Your task to perform on an android device: Go to Wikipedia Image 0: 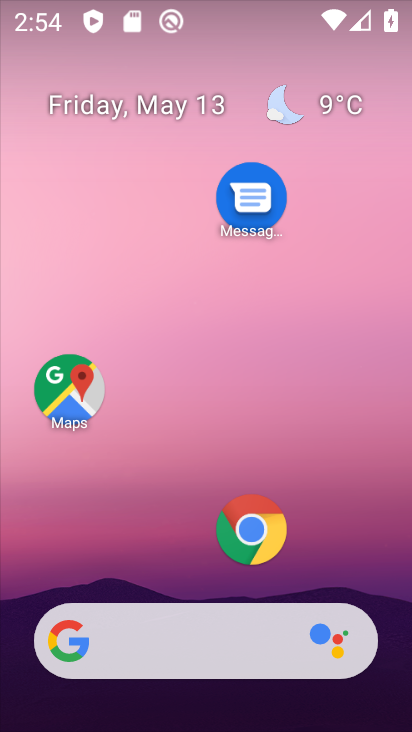
Step 0: click (245, 532)
Your task to perform on an android device: Go to Wikipedia Image 1: 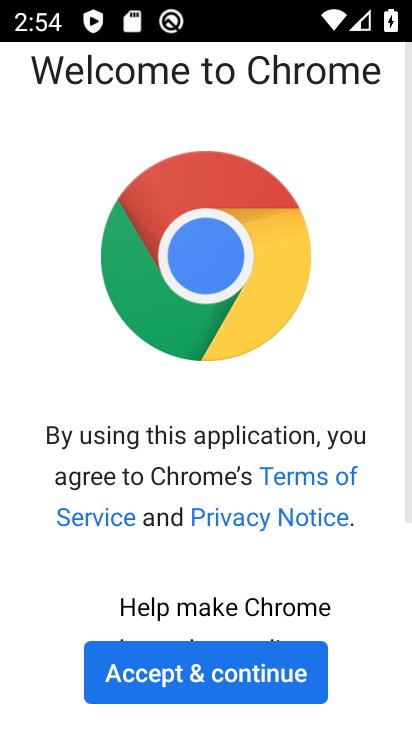
Step 1: click (275, 689)
Your task to perform on an android device: Go to Wikipedia Image 2: 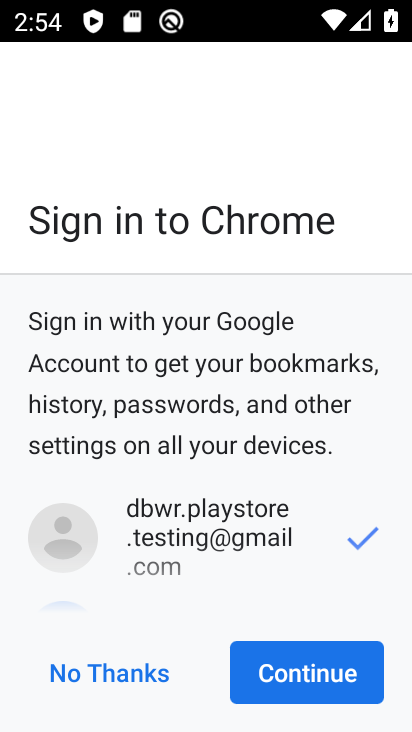
Step 2: click (301, 682)
Your task to perform on an android device: Go to Wikipedia Image 3: 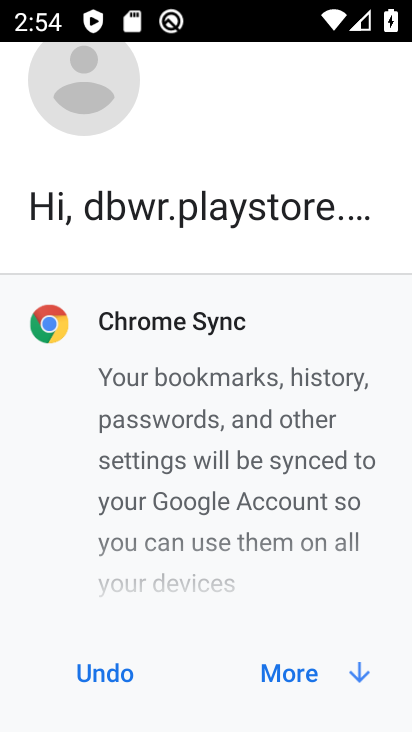
Step 3: click (301, 684)
Your task to perform on an android device: Go to Wikipedia Image 4: 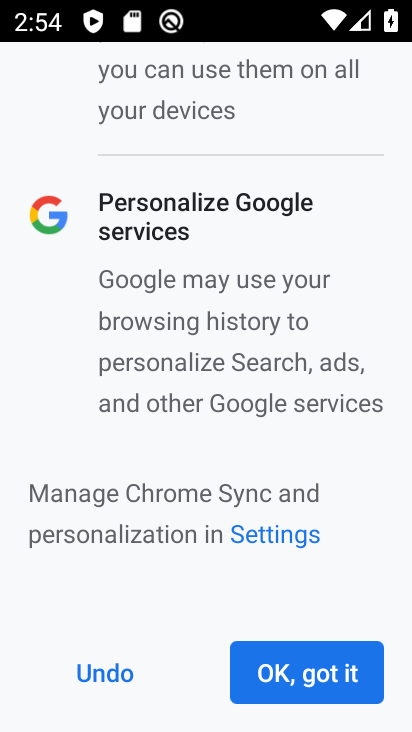
Step 4: click (301, 684)
Your task to perform on an android device: Go to Wikipedia Image 5: 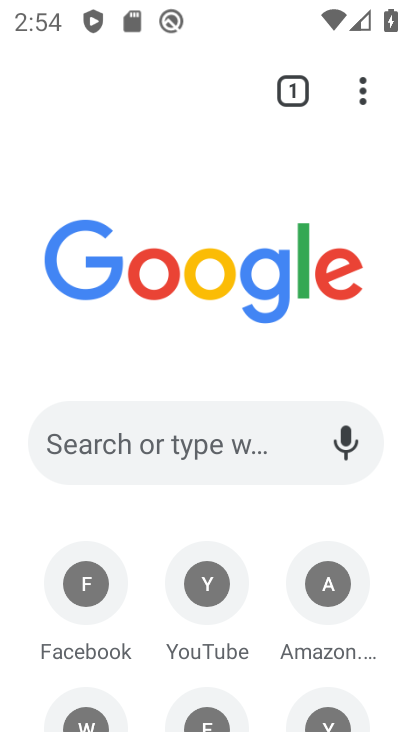
Step 5: drag from (246, 669) to (318, 428)
Your task to perform on an android device: Go to Wikipedia Image 6: 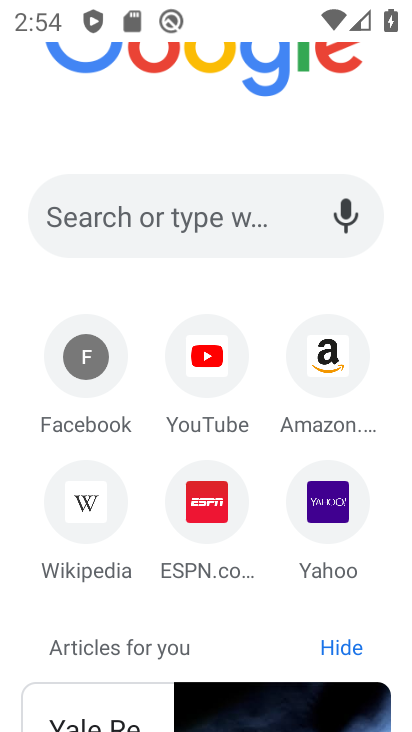
Step 6: click (99, 505)
Your task to perform on an android device: Go to Wikipedia Image 7: 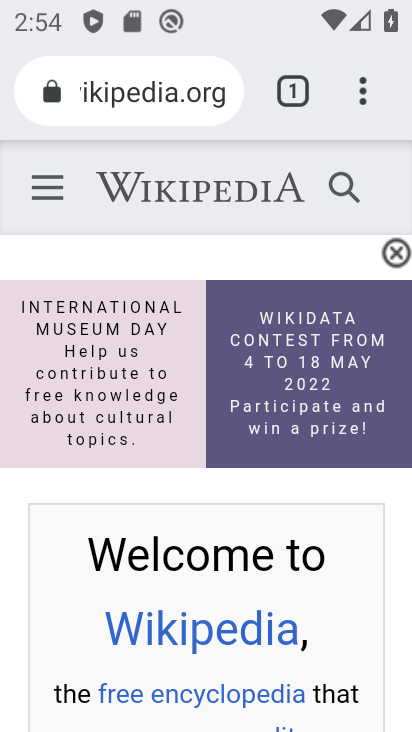
Step 7: task complete